Your task to perform on an android device: add a contact in the contacts app Image 0: 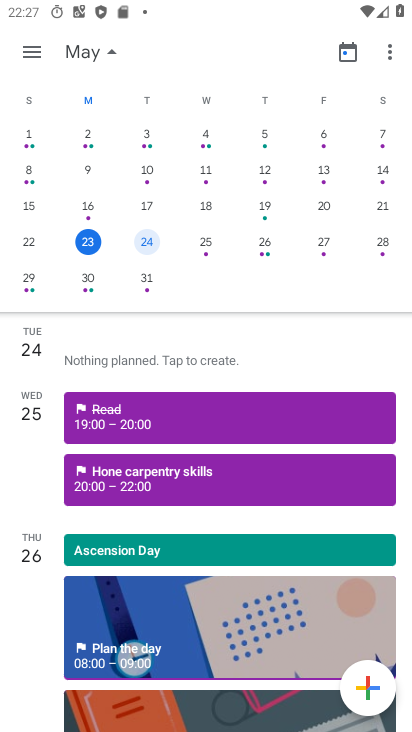
Step 0: press home button
Your task to perform on an android device: add a contact in the contacts app Image 1: 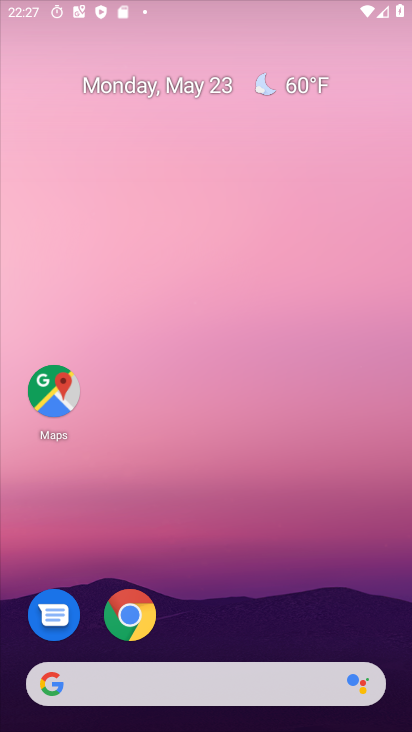
Step 1: drag from (243, 609) to (313, 71)
Your task to perform on an android device: add a contact in the contacts app Image 2: 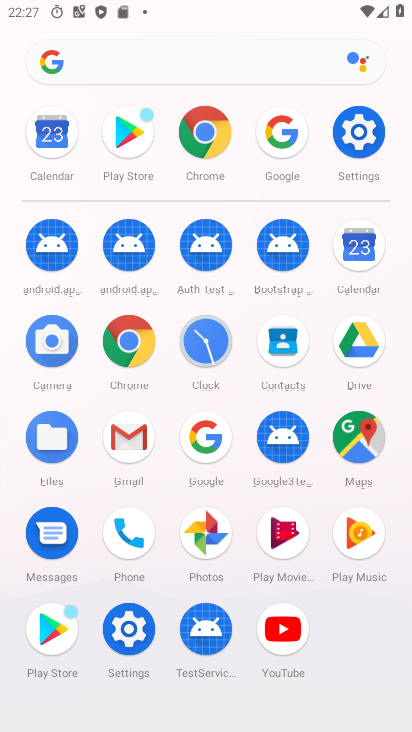
Step 2: click (280, 345)
Your task to perform on an android device: add a contact in the contacts app Image 3: 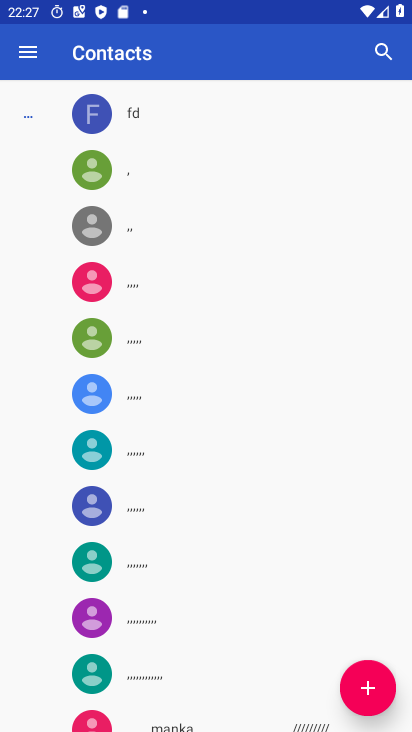
Step 3: click (364, 687)
Your task to perform on an android device: add a contact in the contacts app Image 4: 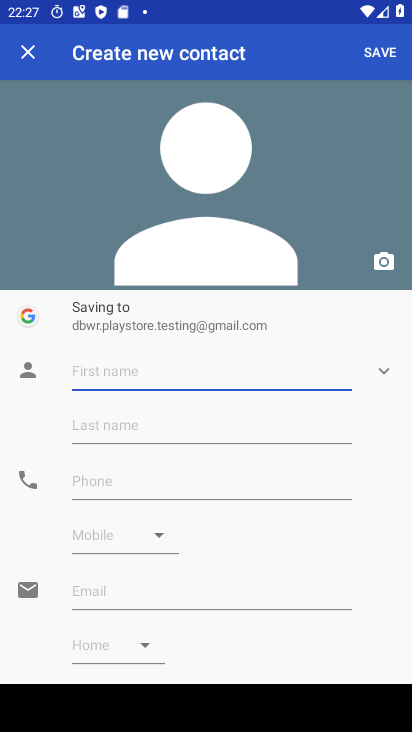
Step 4: type "hhftt"
Your task to perform on an android device: add a contact in the contacts app Image 5: 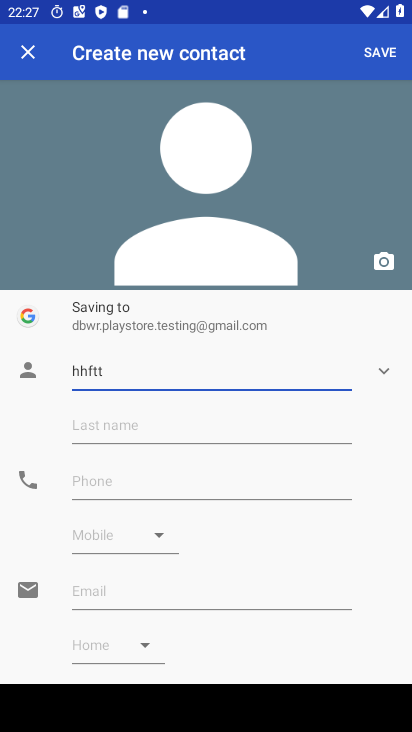
Step 5: click (372, 61)
Your task to perform on an android device: add a contact in the contacts app Image 6: 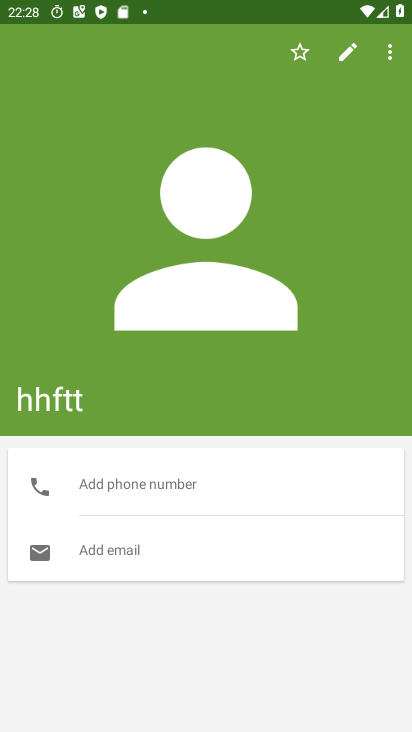
Step 6: task complete